Your task to perform on an android device: delete the emails in spam in the gmail app Image 0: 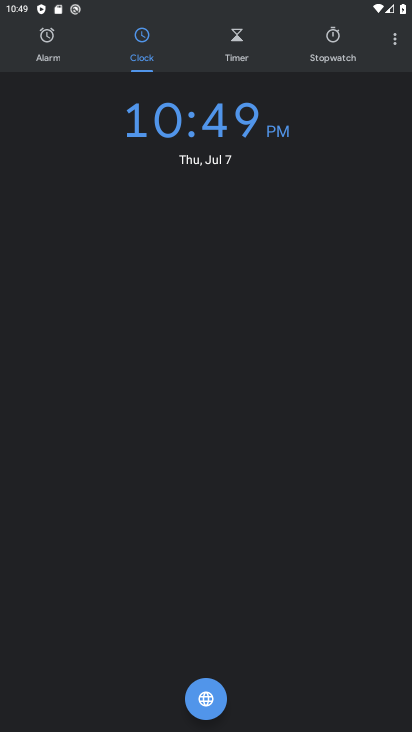
Step 0: press home button
Your task to perform on an android device: delete the emails in spam in the gmail app Image 1: 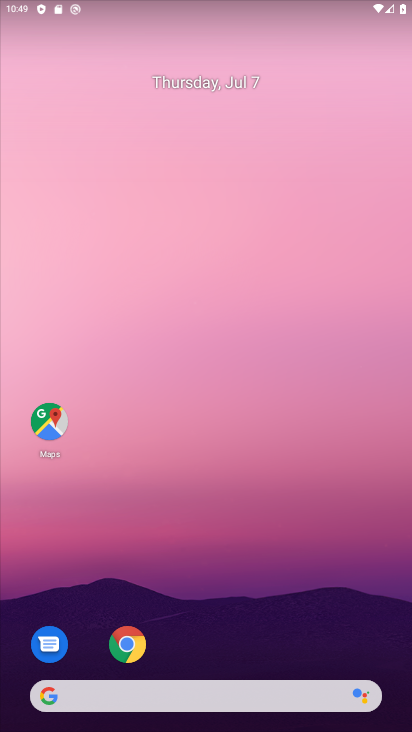
Step 1: drag from (214, 586) to (216, 181)
Your task to perform on an android device: delete the emails in spam in the gmail app Image 2: 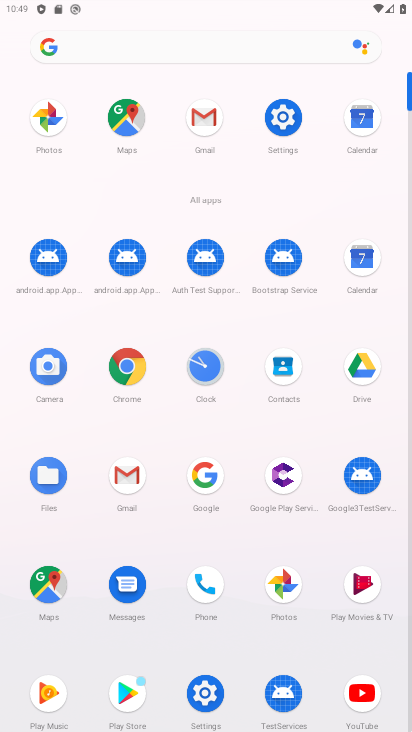
Step 2: click (128, 472)
Your task to perform on an android device: delete the emails in spam in the gmail app Image 3: 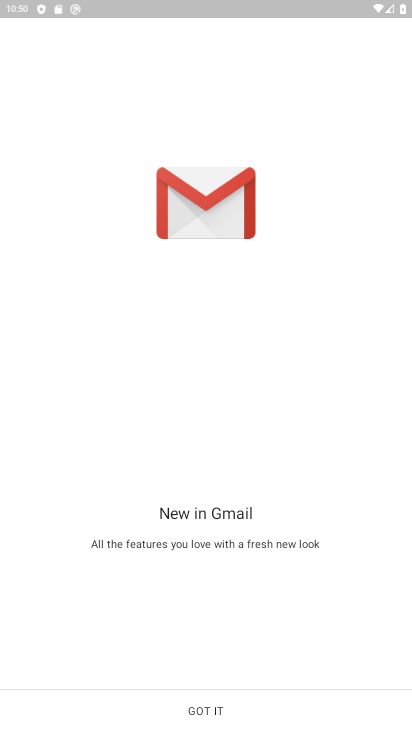
Step 3: click (211, 707)
Your task to perform on an android device: delete the emails in spam in the gmail app Image 4: 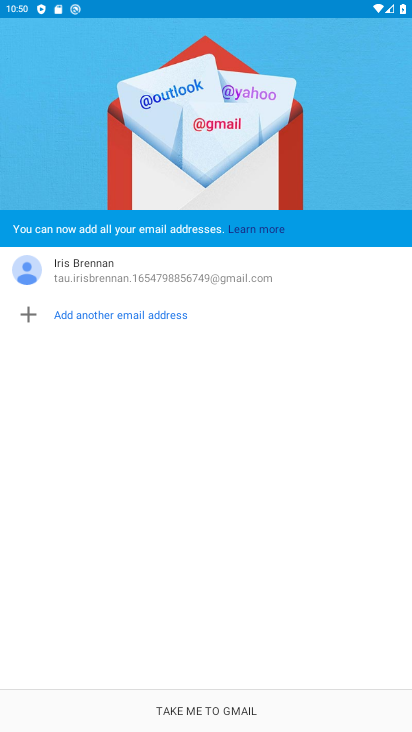
Step 4: click (211, 707)
Your task to perform on an android device: delete the emails in spam in the gmail app Image 5: 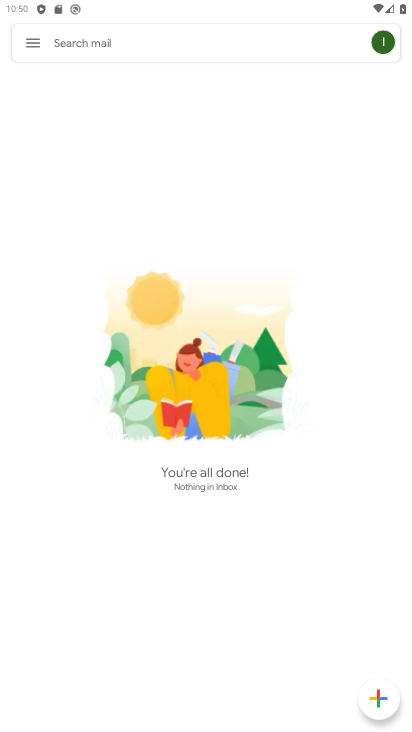
Step 5: task complete